Your task to perform on an android device: find photos in the google photos app Image 0: 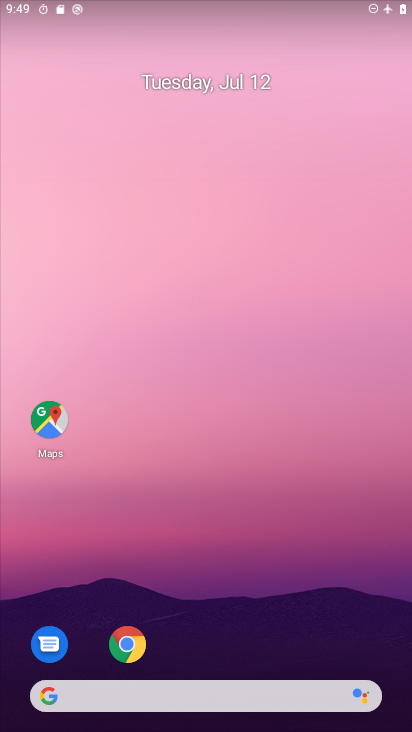
Step 0: drag from (227, 627) to (236, 15)
Your task to perform on an android device: find photos in the google photos app Image 1: 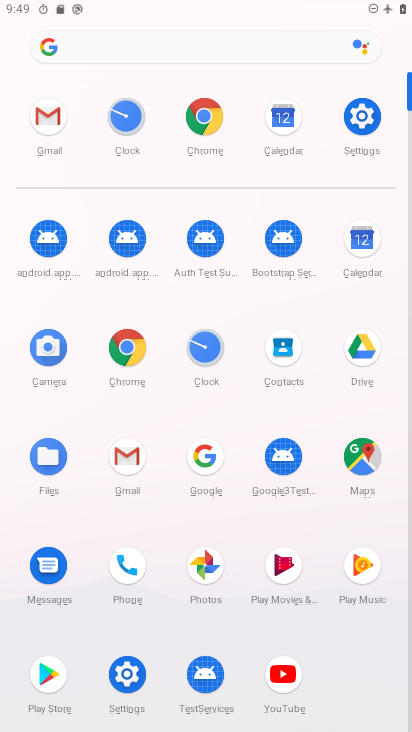
Step 1: click (202, 578)
Your task to perform on an android device: find photos in the google photos app Image 2: 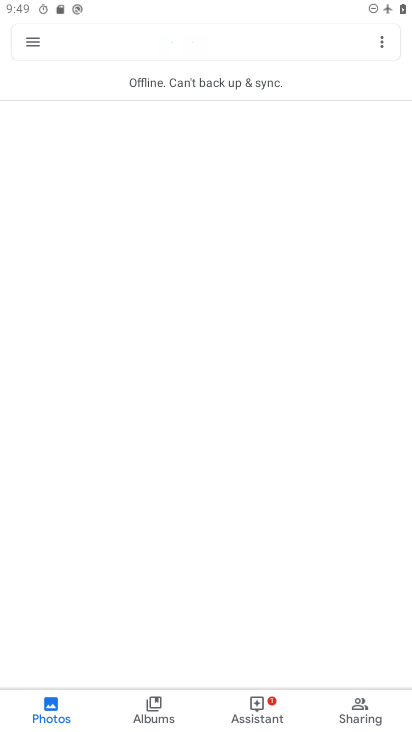
Step 2: click (200, 48)
Your task to perform on an android device: find photos in the google photos app Image 3: 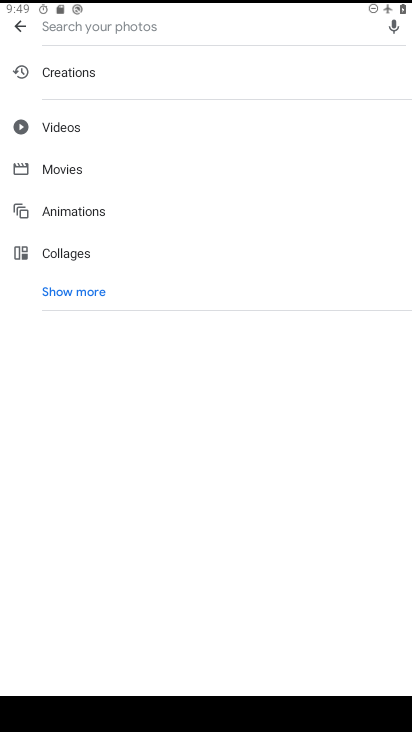
Step 3: type "aa"
Your task to perform on an android device: find photos in the google photos app Image 4: 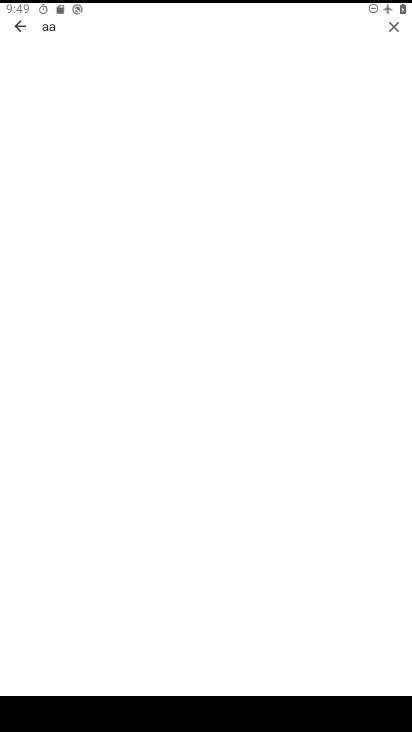
Step 4: task complete